Your task to perform on an android device: Open location settings Image 0: 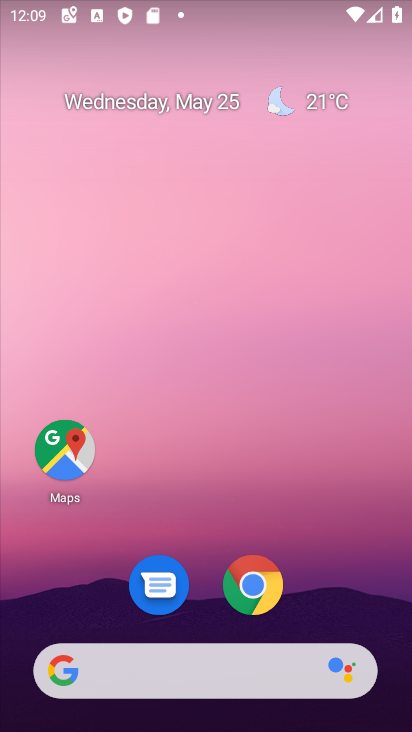
Step 0: drag from (231, 508) to (261, 106)
Your task to perform on an android device: Open location settings Image 1: 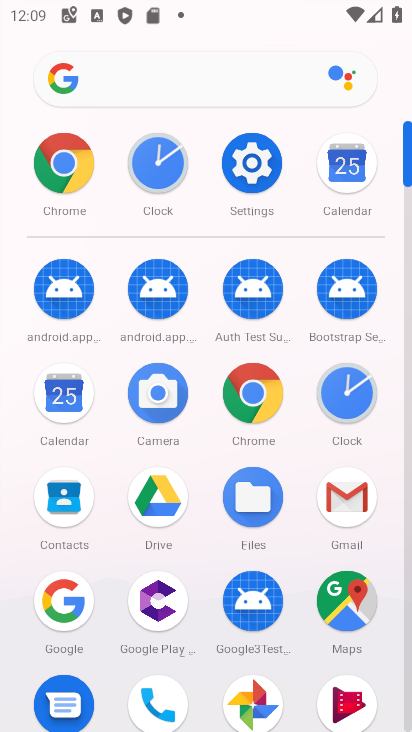
Step 1: click (256, 161)
Your task to perform on an android device: Open location settings Image 2: 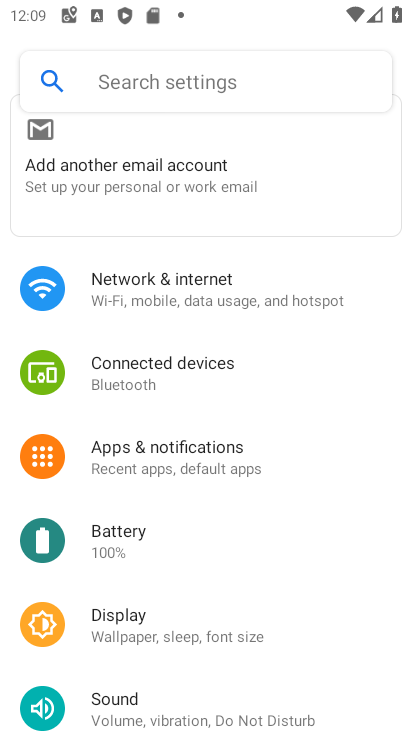
Step 2: drag from (221, 588) to (246, 137)
Your task to perform on an android device: Open location settings Image 3: 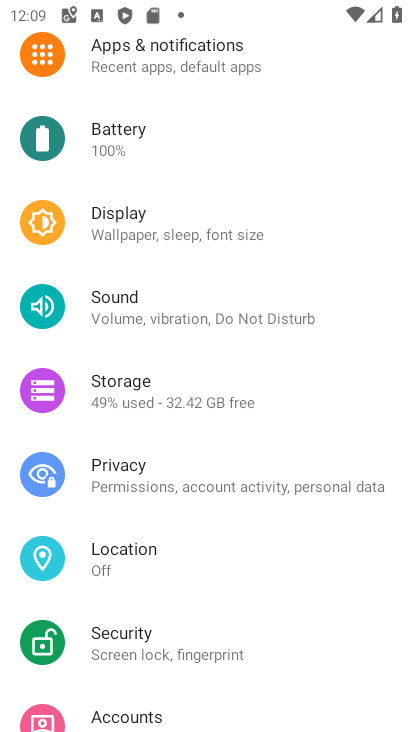
Step 3: click (216, 562)
Your task to perform on an android device: Open location settings Image 4: 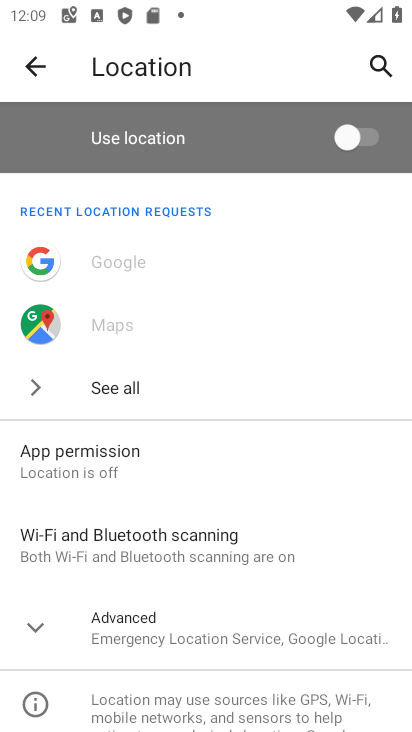
Step 4: click (366, 131)
Your task to perform on an android device: Open location settings Image 5: 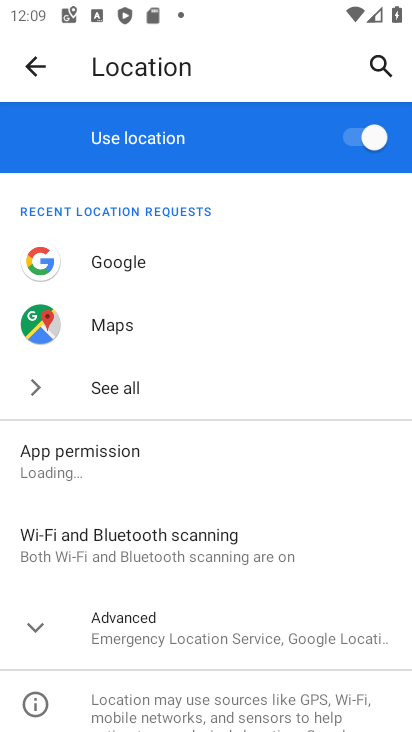
Step 5: task complete